Your task to perform on an android device: Turn off the flashlight Image 0: 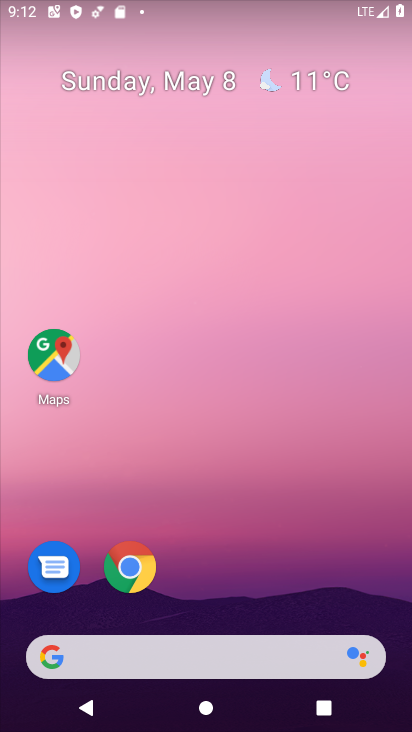
Step 0: drag from (241, 572) to (261, 75)
Your task to perform on an android device: Turn off the flashlight Image 1: 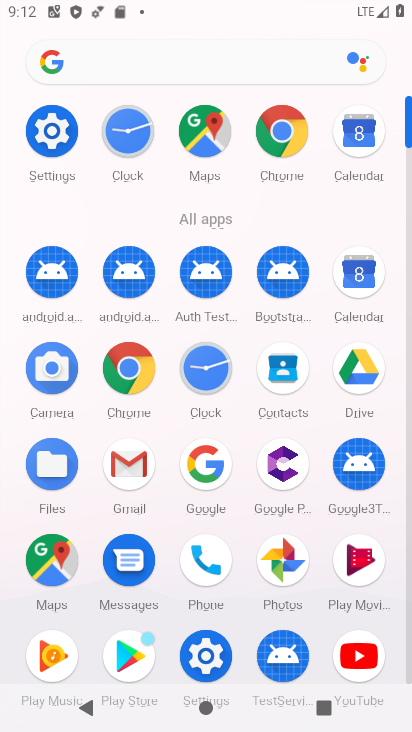
Step 1: click (68, 124)
Your task to perform on an android device: Turn off the flashlight Image 2: 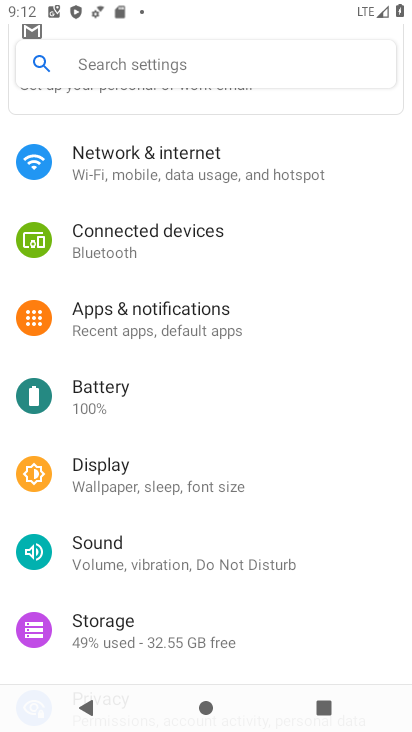
Step 2: click (170, 54)
Your task to perform on an android device: Turn off the flashlight Image 3: 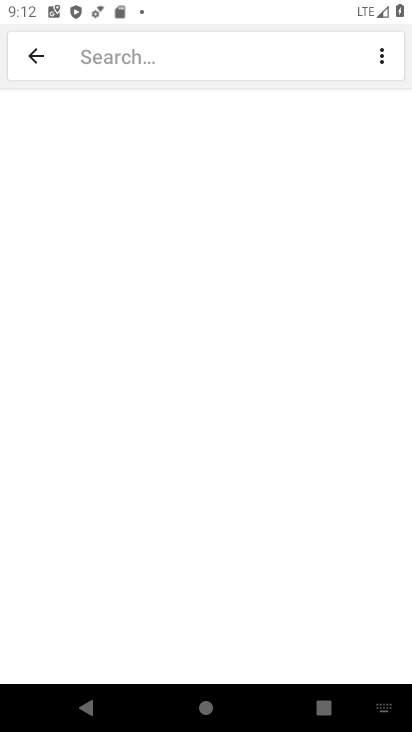
Step 3: type "fl"
Your task to perform on an android device: Turn off the flashlight Image 4: 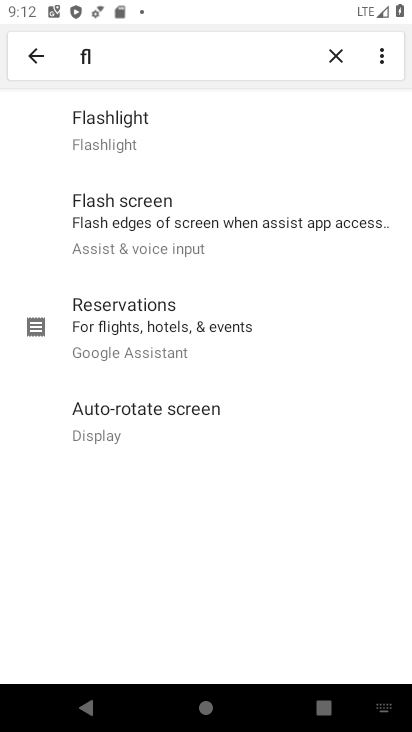
Step 4: type "flashlight"
Your task to perform on an android device: Turn off the flashlight Image 5: 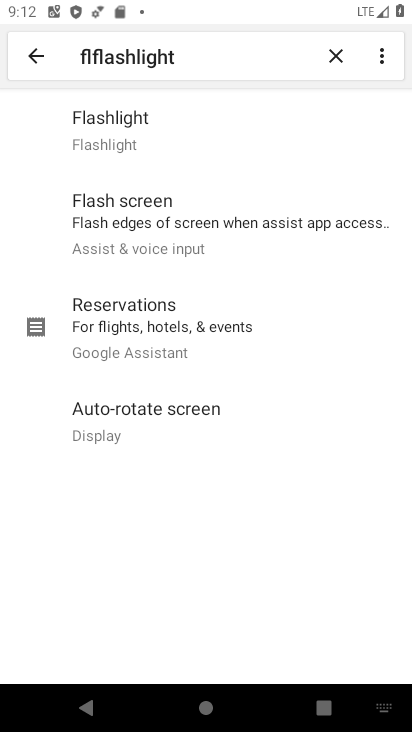
Step 5: click (126, 128)
Your task to perform on an android device: Turn off the flashlight Image 6: 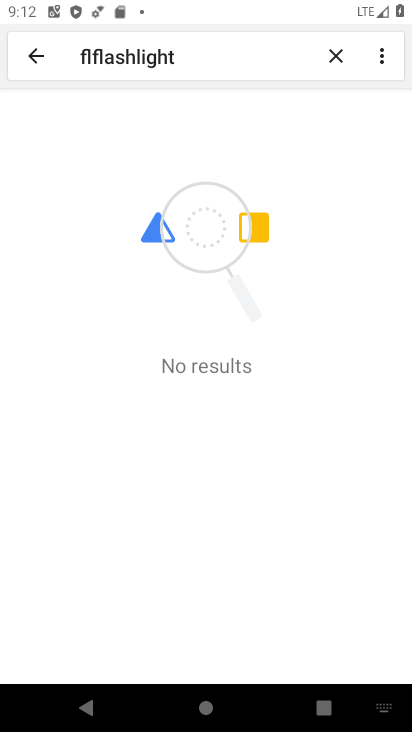
Step 6: click (330, 53)
Your task to perform on an android device: Turn off the flashlight Image 7: 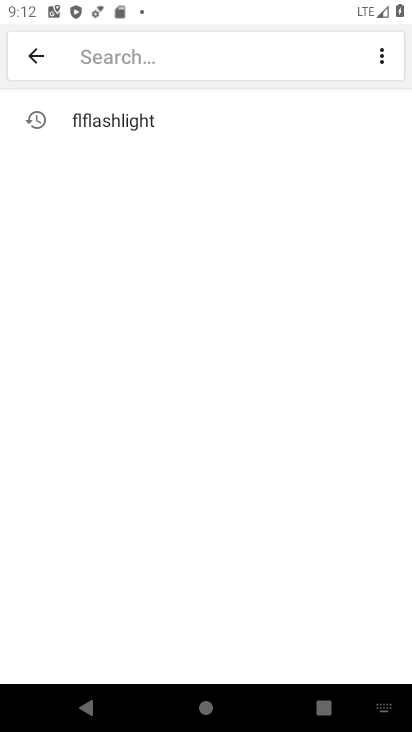
Step 7: type "flashlight"
Your task to perform on an android device: Turn off the flashlight Image 8: 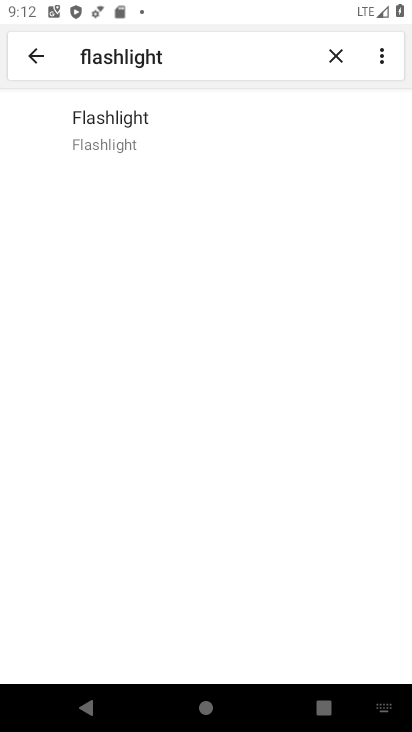
Step 8: click (155, 124)
Your task to perform on an android device: Turn off the flashlight Image 9: 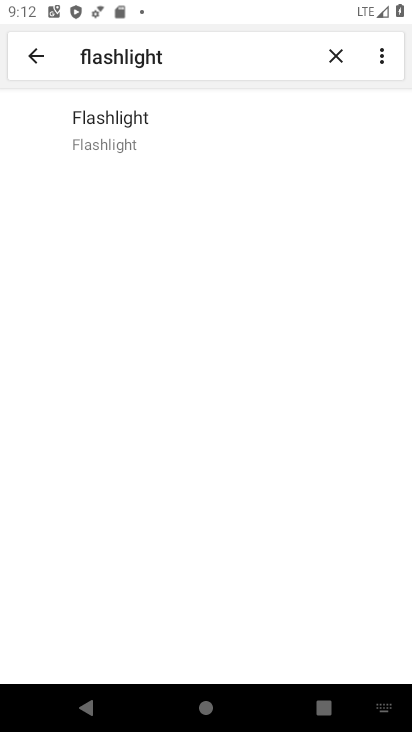
Step 9: task complete